Your task to perform on an android device: remove spam from my inbox in the gmail app Image 0: 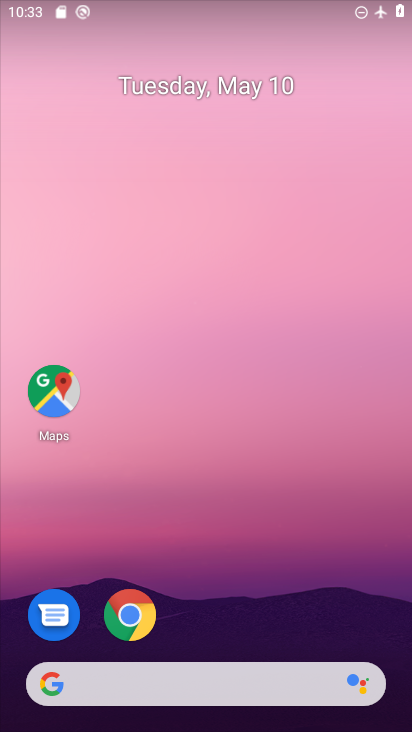
Step 0: drag from (169, 626) to (242, 307)
Your task to perform on an android device: remove spam from my inbox in the gmail app Image 1: 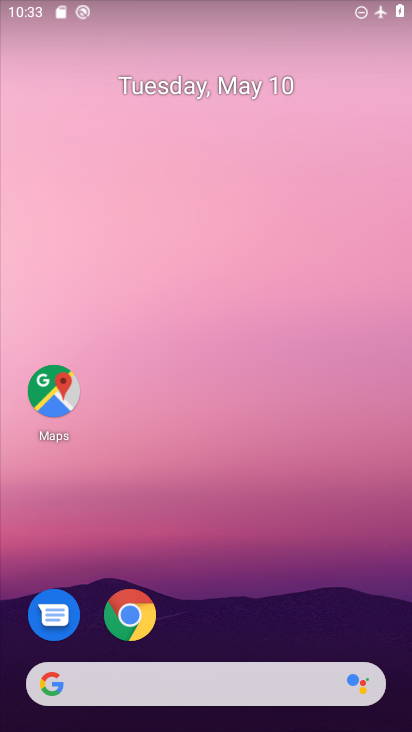
Step 1: drag from (199, 619) to (311, 185)
Your task to perform on an android device: remove spam from my inbox in the gmail app Image 2: 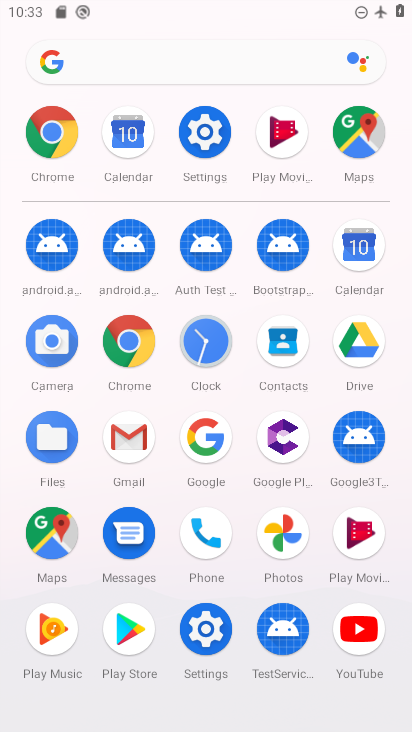
Step 2: click (127, 432)
Your task to perform on an android device: remove spam from my inbox in the gmail app Image 3: 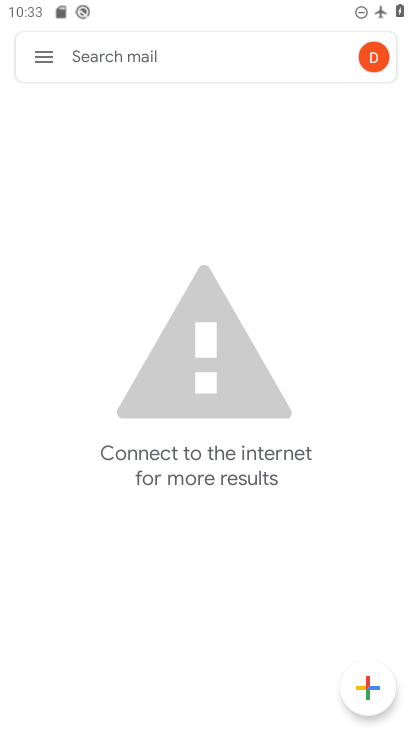
Step 3: click (46, 63)
Your task to perform on an android device: remove spam from my inbox in the gmail app Image 4: 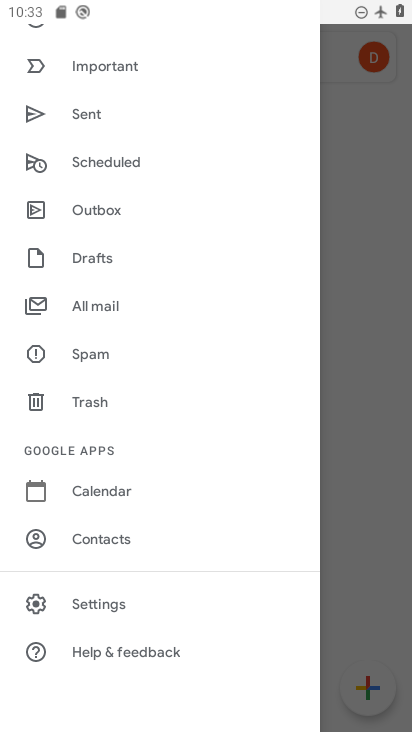
Step 4: click (114, 354)
Your task to perform on an android device: remove spam from my inbox in the gmail app Image 5: 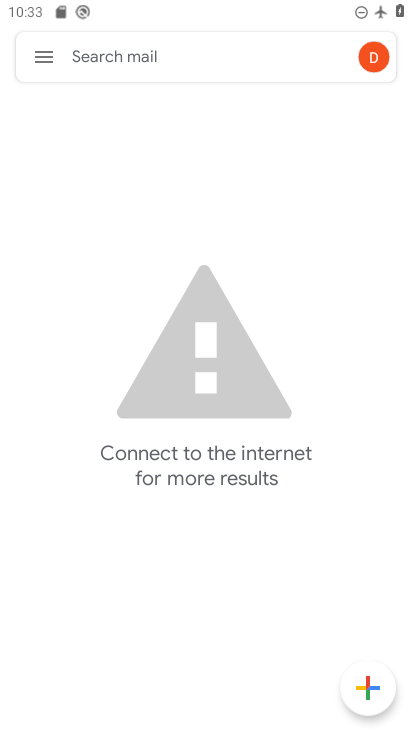
Step 5: drag from (184, 542) to (227, 416)
Your task to perform on an android device: remove spam from my inbox in the gmail app Image 6: 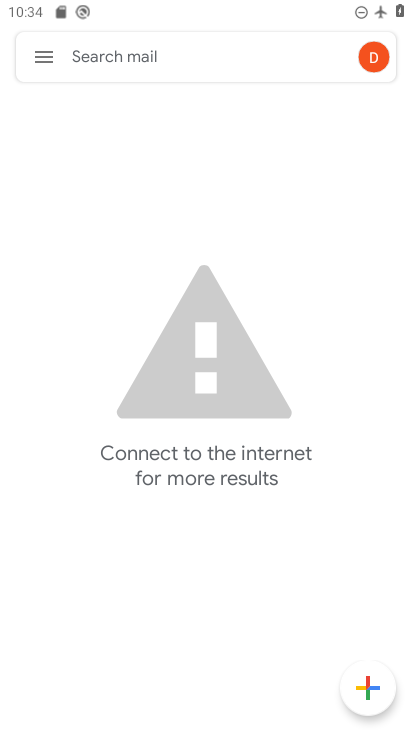
Step 6: drag from (183, 603) to (249, 425)
Your task to perform on an android device: remove spam from my inbox in the gmail app Image 7: 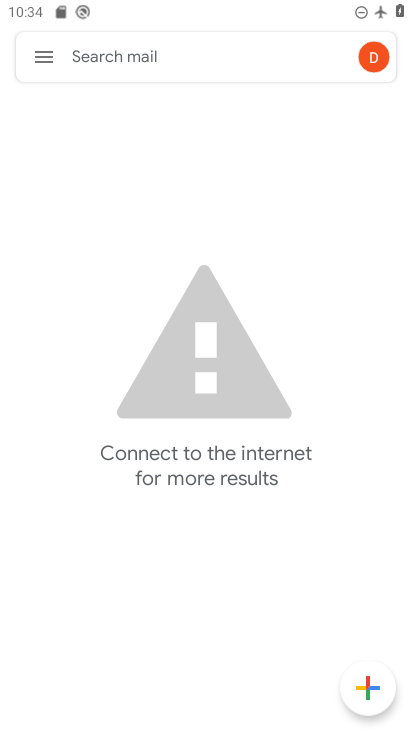
Step 7: click (39, 55)
Your task to perform on an android device: remove spam from my inbox in the gmail app Image 8: 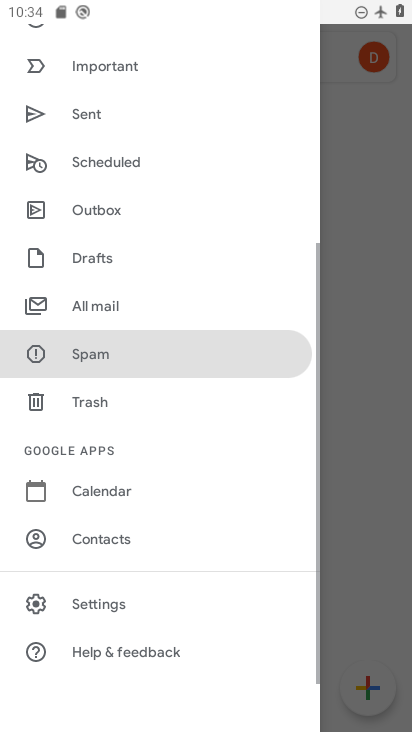
Step 8: click (82, 348)
Your task to perform on an android device: remove spam from my inbox in the gmail app Image 9: 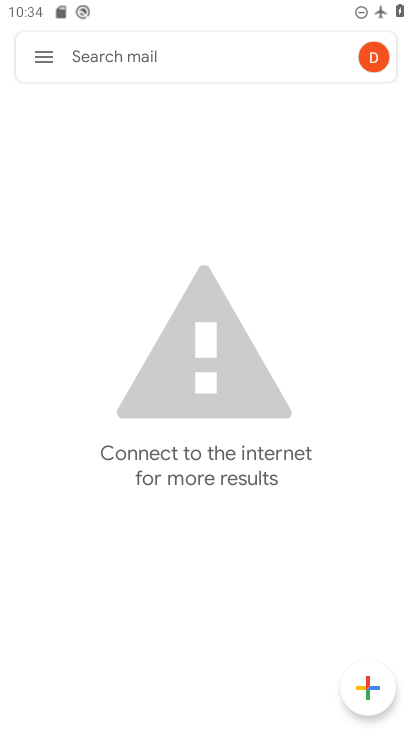
Step 9: click (324, 471)
Your task to perform on an android device: remove spam from my inbox in the gmail app Image 10: 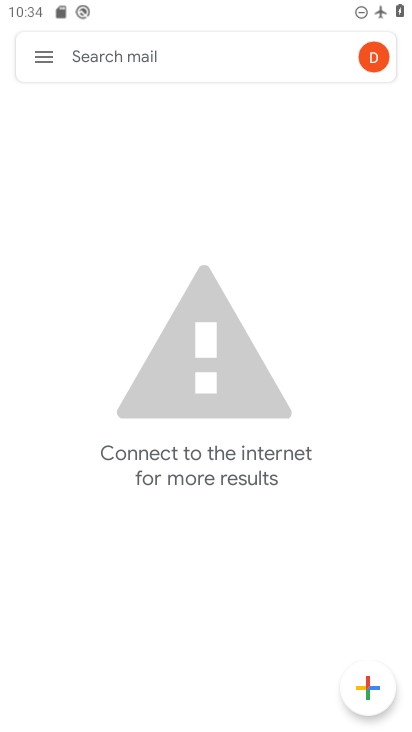
Step 10: task complete